Your task to perform on an android device: turn on airplane mode Image 0: 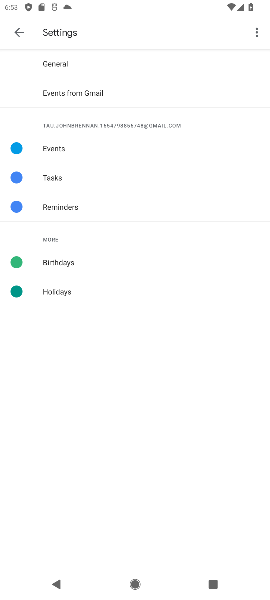
Step 0: press home button
Your task to perform on an android device: turn on airplane mode Image 1: 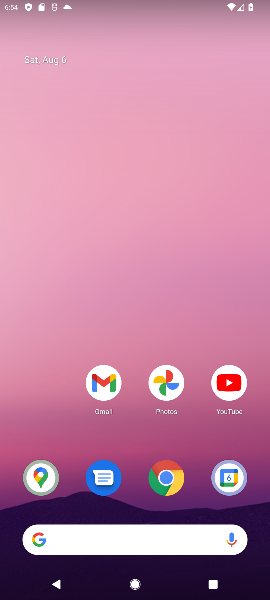
Step 1: drag from (115, 5) to (115, 343)
Your task to perform on an android device: turn on airplane mode Image 2: 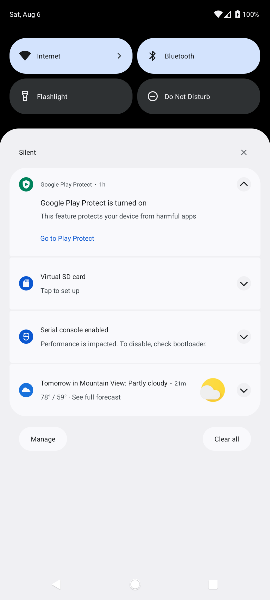
Step 2: drag from (144, 122) to (158, 539)
Your task to perform on an android device: turn on airplane mode Image 3: 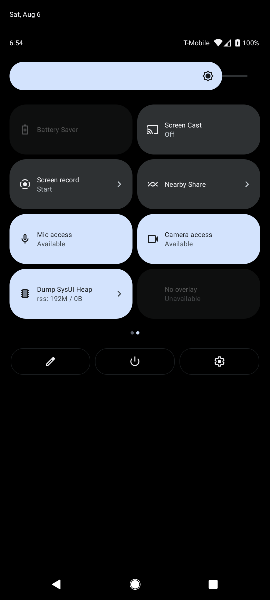
Step 3: drag from (16, 138) to (261, 199)
Your task to perform on an android device: turn on airplane mode Image 4: 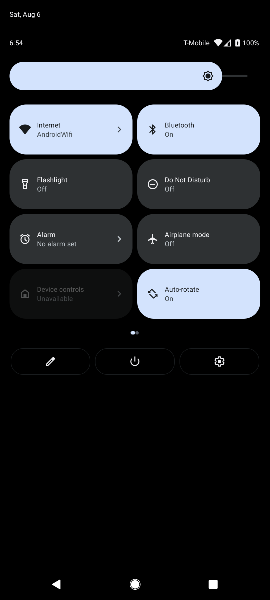
Step 4: click (147, 295)
Your task to perform on an android device: turn on airplane mode Image 5: 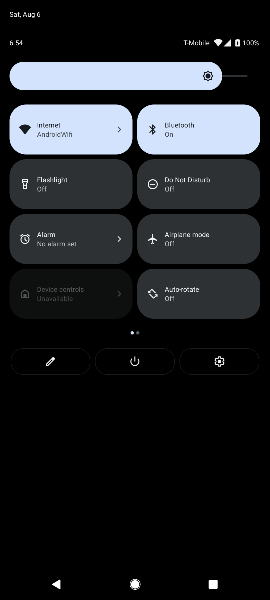
Step 5: click (211, 299)
Your task to perform on an android device: turn on airplane mode Image 6: 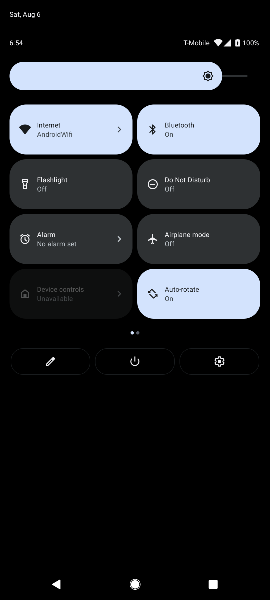
Step 6: click (200, 242)
Your task to perform on an android device: turn on airplane mode Image 7: 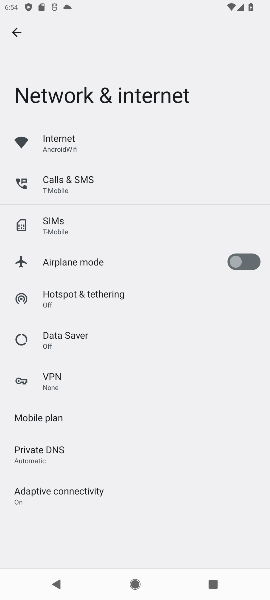
Step 7: click (239, 255)
Your task to perform on an android device: turn on airplane mode Image 8: 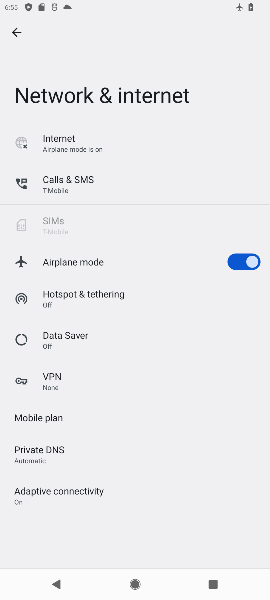
Step 8: task complete